Your task to perform on an android device: open app "WhatsApp Messenger" (install if not already installed) Image 0: 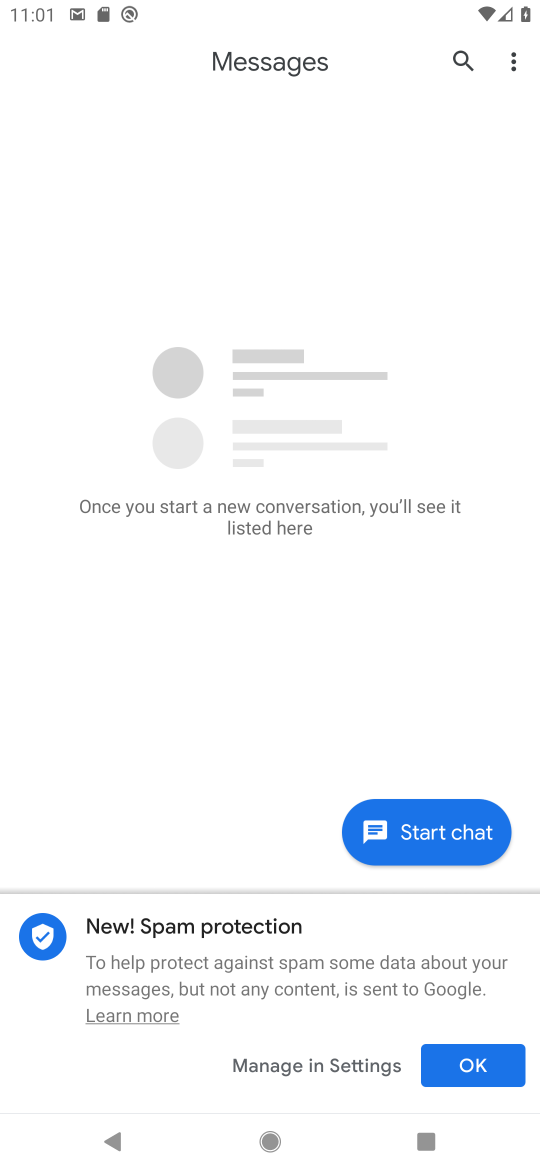
Step 0: press home button
Your task to perform on an android device: open app "WhatsApp Messenger" (install if not already installed) Image 1: 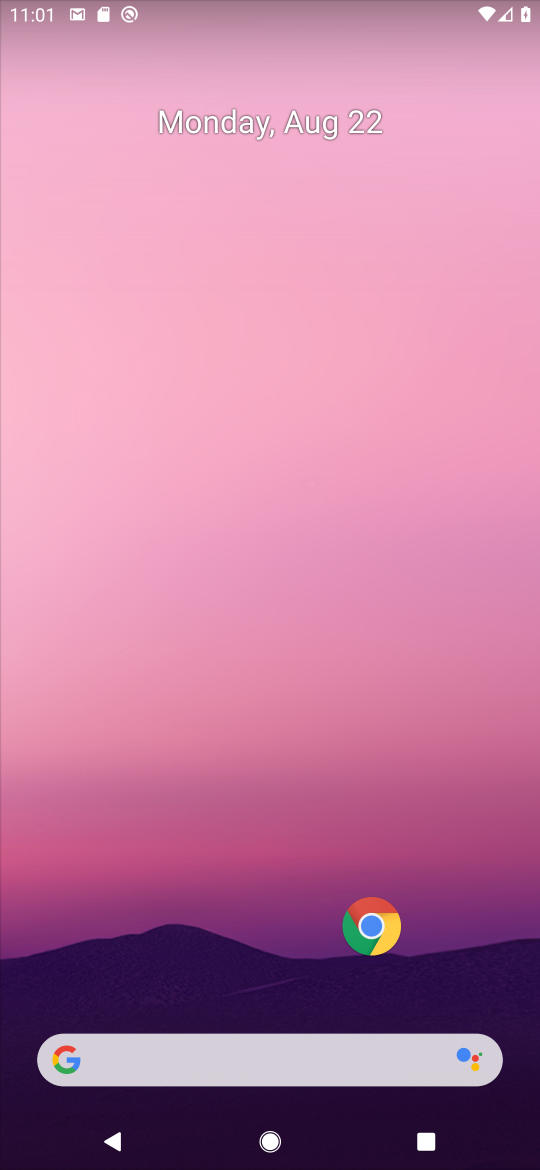
Step 1: drag from (253, 779) to (378, 164)
Your task to perform on an android device: open app "WhatsApp Messenger" (install if not already installed) Image 2: 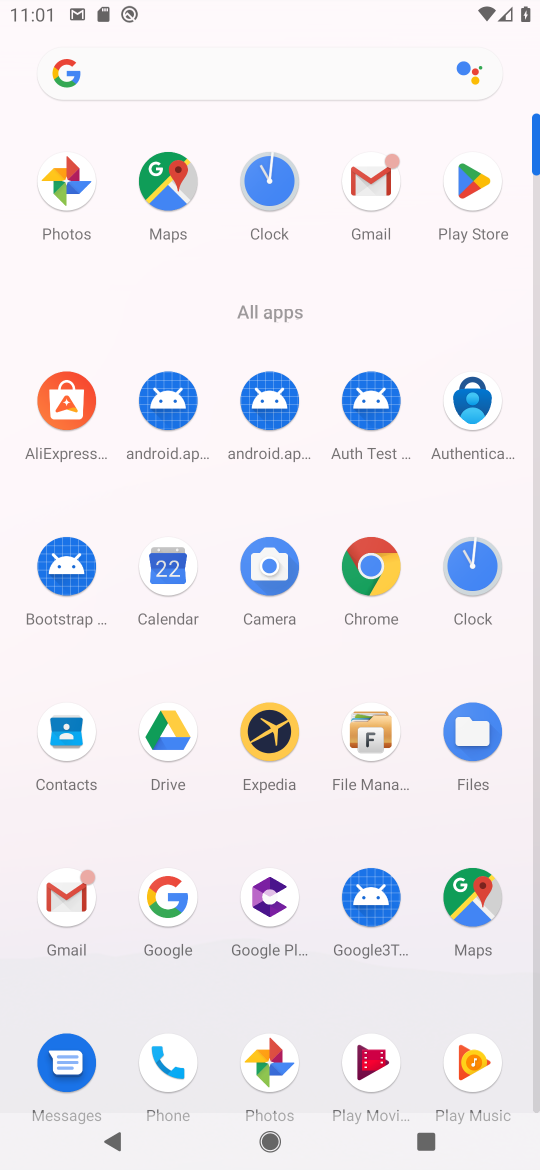
Step 2: click (458, 192)
Your task to perform on an android device: open app "WhatsApp Messenger" (install if not already installed) Image 3: 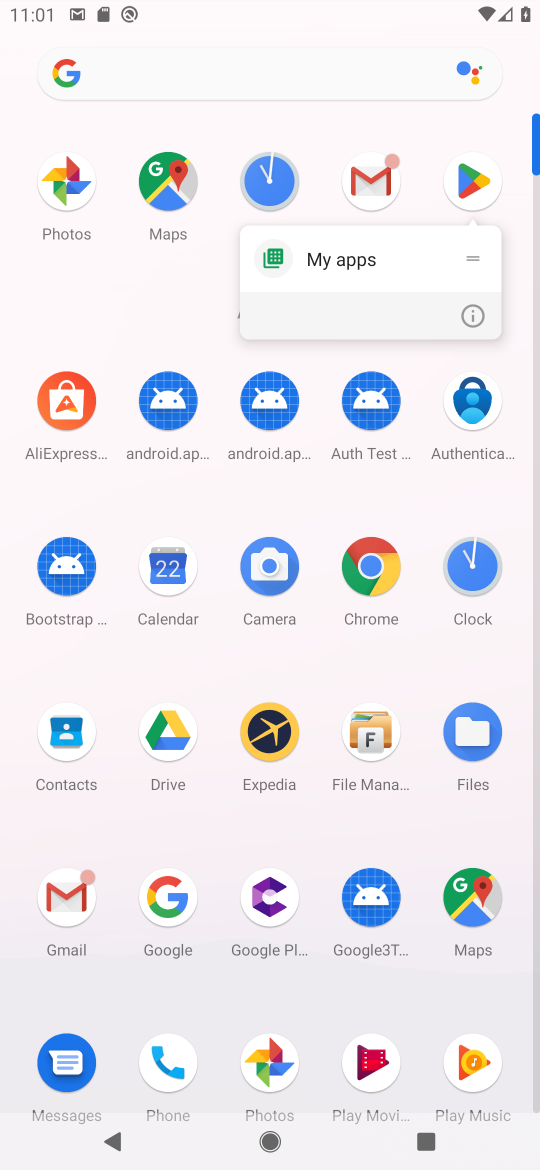
Step 3: click (458, 190)
Your task to perform on an android device: open app "WhatsApp Messenger" (install if not already installed) Image 4: 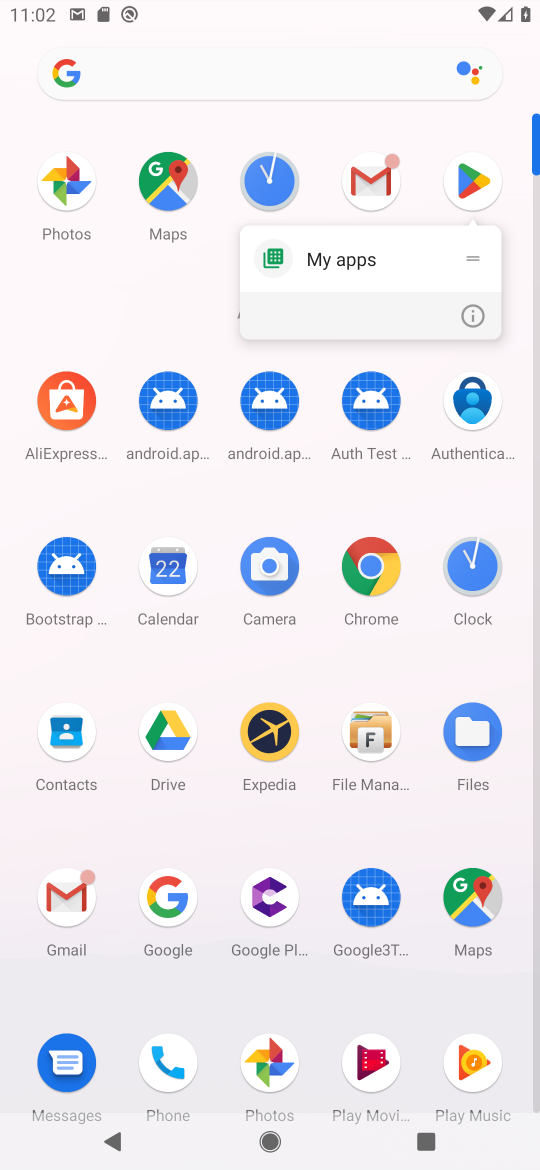
Step 4: click (487, 194)
Your task to perform on an android device: open app "WhatsApp Messenger" (install if not already installed) Image 5: 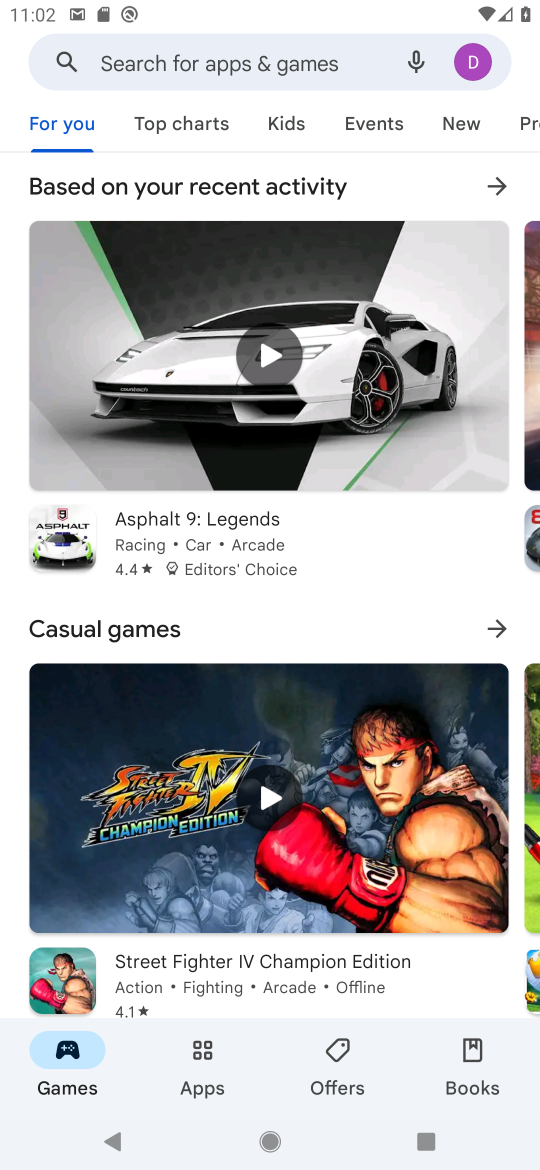
Step 5: click (195, 66)
Your task to perform on an android device: open app "WhatsApp Messenger" (install if not already installed) Image 6: 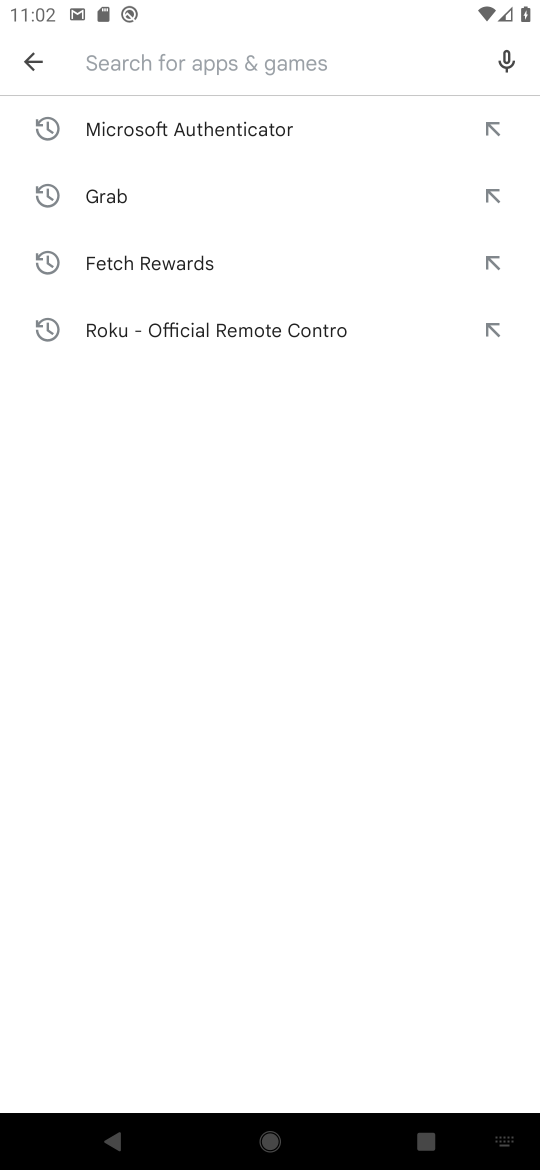
Step 6: type "WhatsApp Messenger"
Your task to perform on an android device: open app "WhatsApp Messenger" (install if not already installed) Image 7: 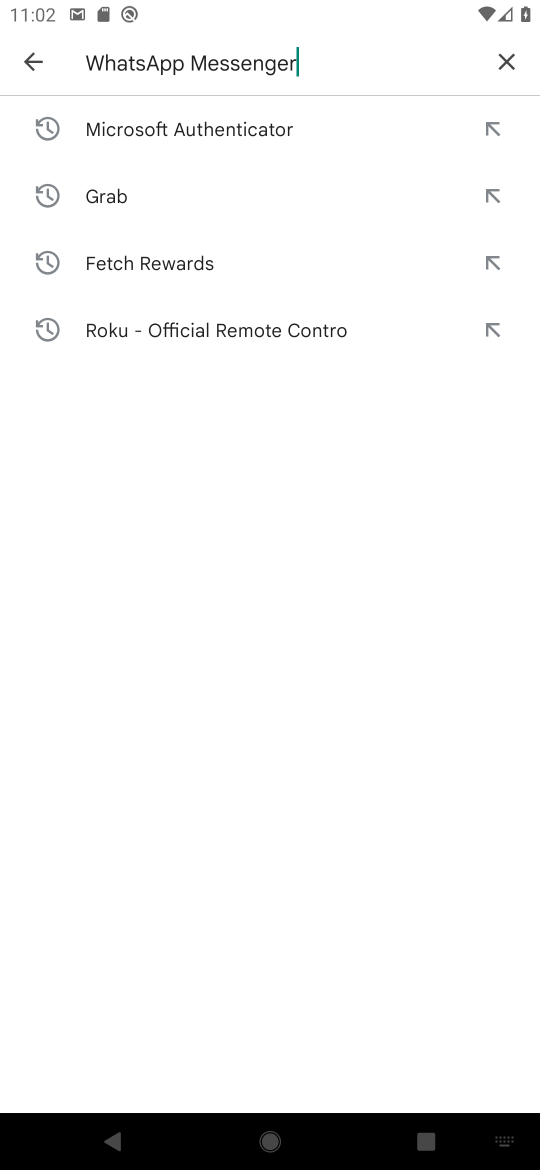
Step 7: press enter
Your task to perform on an android device: open app "WhatsApp Messenger" (install if not already installed) Image 8: 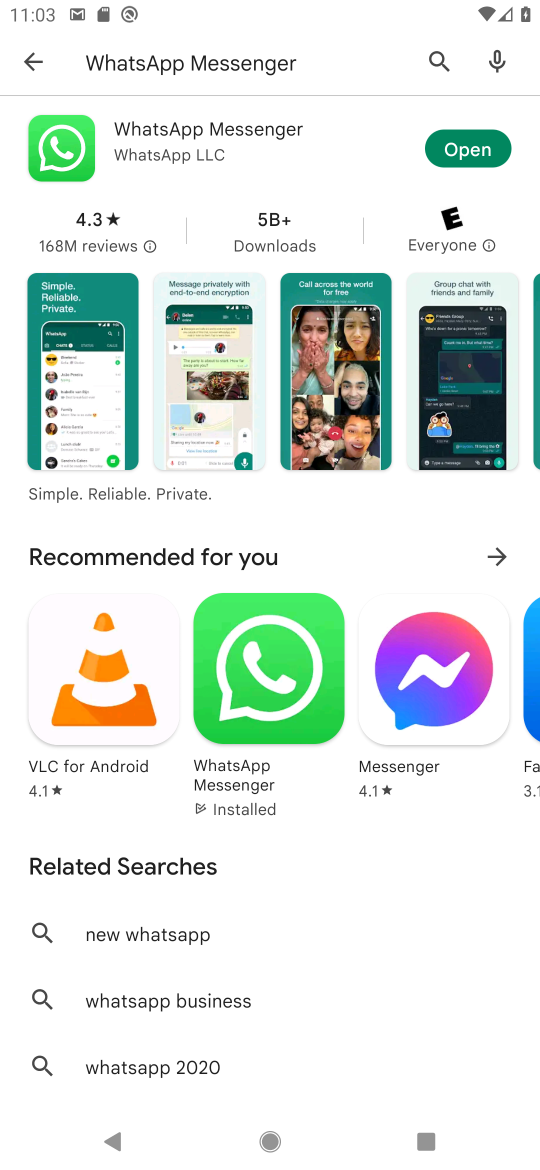
Step 8: click (457, 157)
Your task to perform on an android device: open app "WhatsApp Messenger" (install if not already installed) Image 9: 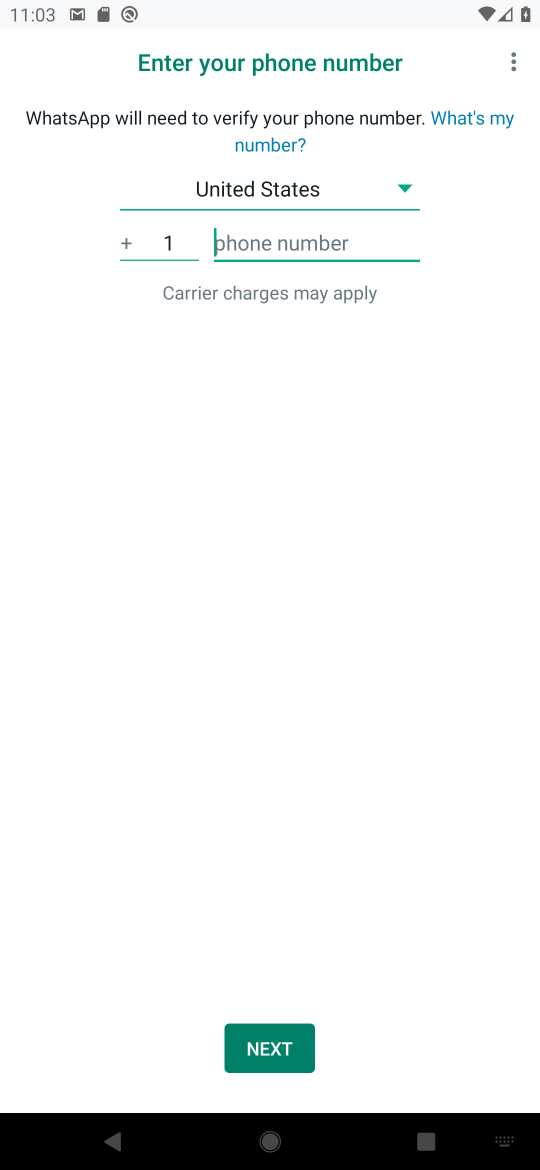
Step 9: task complete